Your task to perform on an android device: Open the calendar app, open the side menu, and click the "Day" option Image 0: 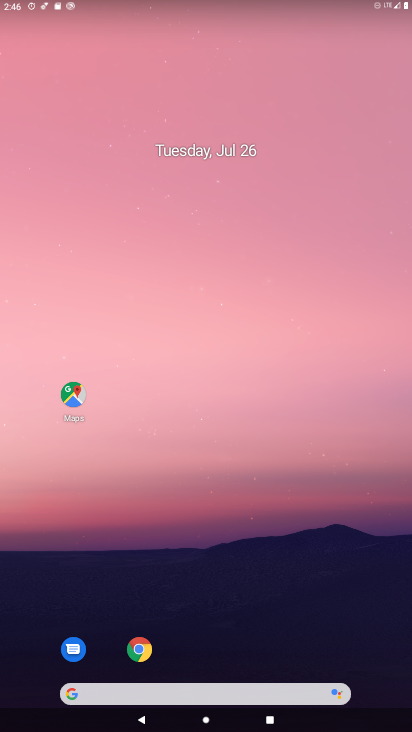
Step 0: drag from (370, 651) to (17, 170)
Your task to perform on an android device: Open the calendar app, open the side menu, and click the "Day" option Image 1: 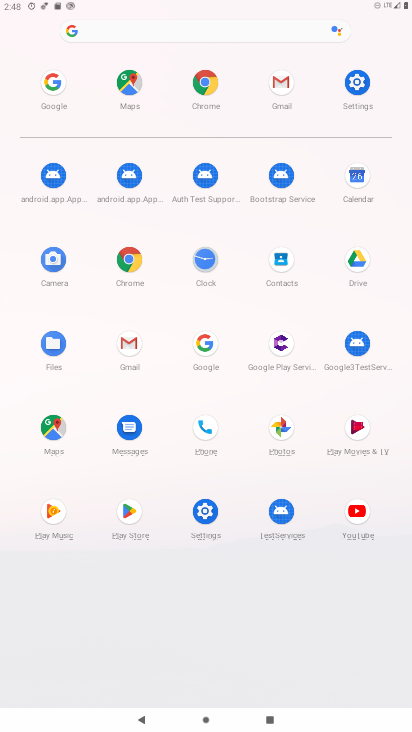
Step 1: click (351, 176)
Your task to perform on an android device: Open the calendar app, open the side menu, and click the "Day" option Image 2: 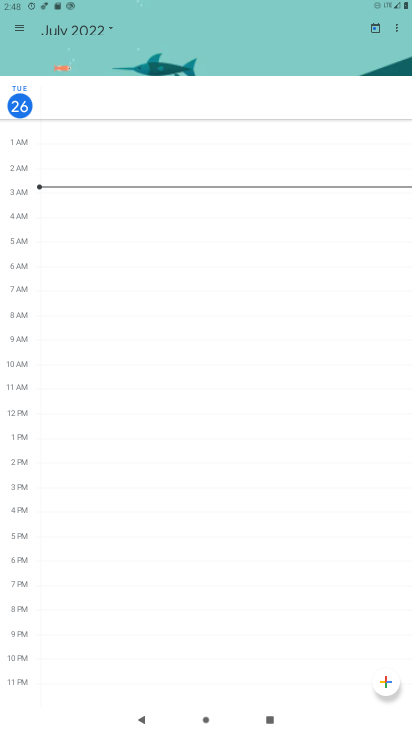
Step 2: click (17, 33)
Your task to perform on an android device: Open the calendar app, open the side menu, and click the "Day" option Image 3: 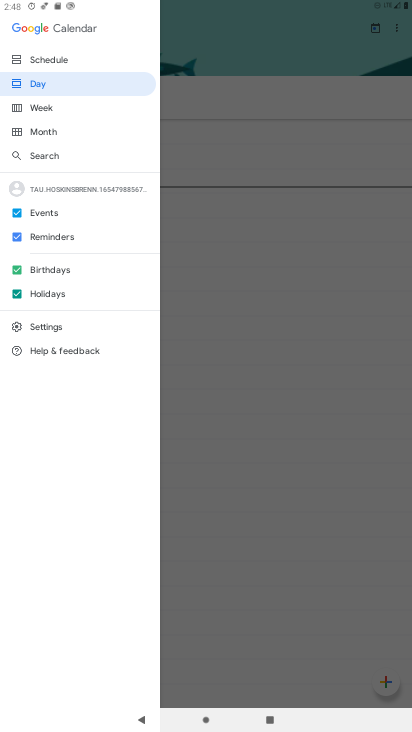
Step 3: click (97, 86)
Your task to perform on an android device: Open the calendar app, open the side menu, and click the "Day" option Image 4: 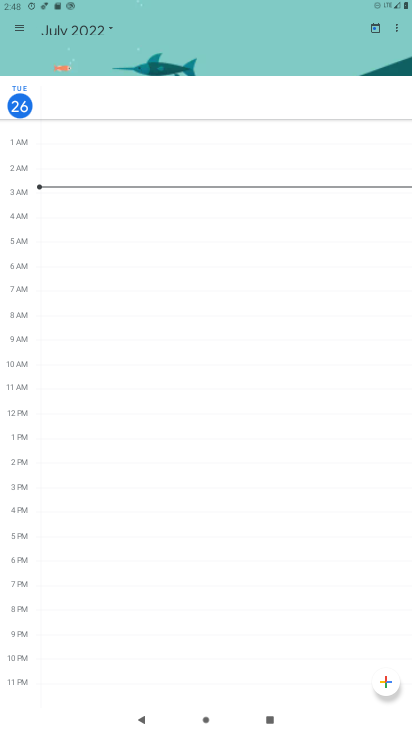
Step 4: task complete